Your task to perform on an android device: Open Wikipedia Image 0: 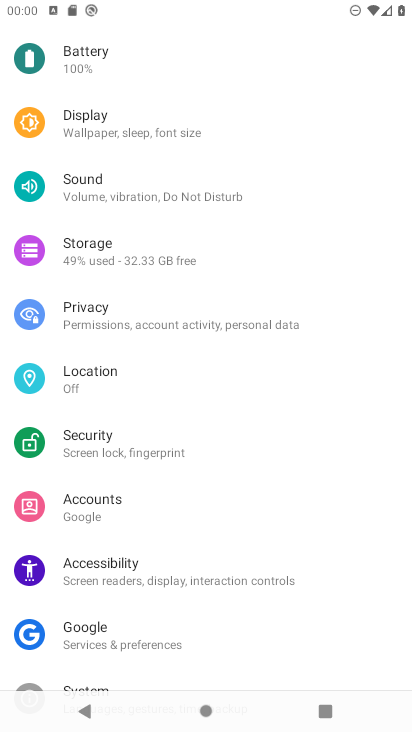
Step 0: press home button
Your task to perform on an android device: Open Wikipedia Image 1: 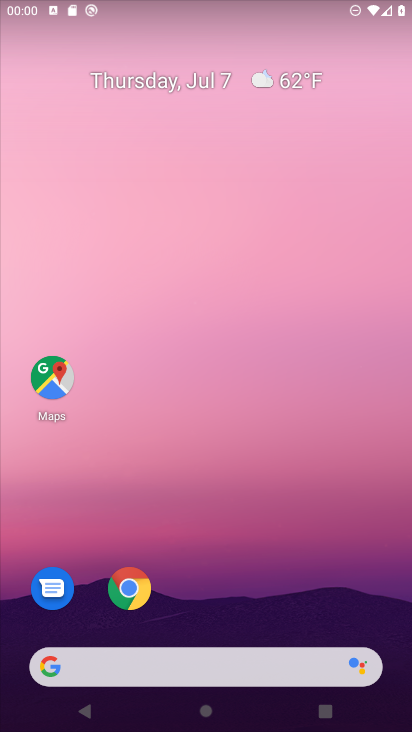
Step 1: click (130, 591)
Your task to perform on an android device: Open Wikipedia Image 2: 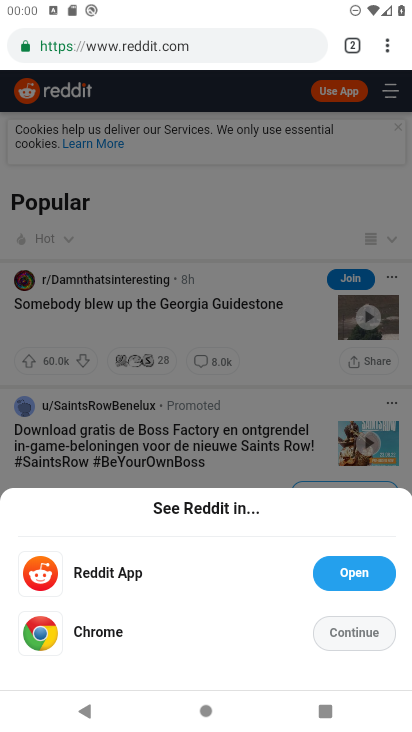
Step 2: click (214, 48)
Your task to perform on an android device: Open Wikipedia Image 3: 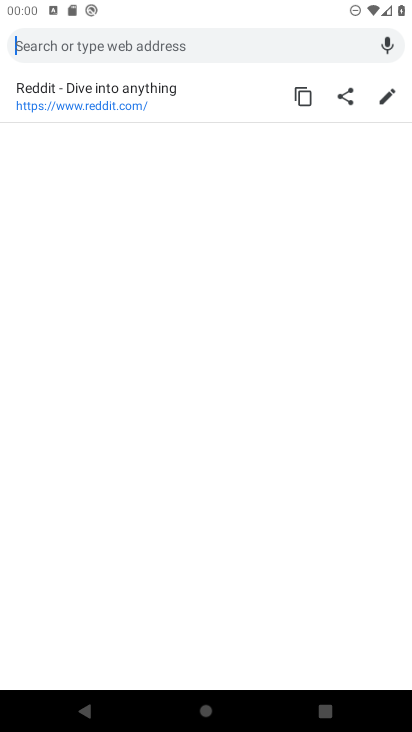
Step 3: type "Wikipedia"
Your task to perform on an android device: Open Wikipedia Image 4: 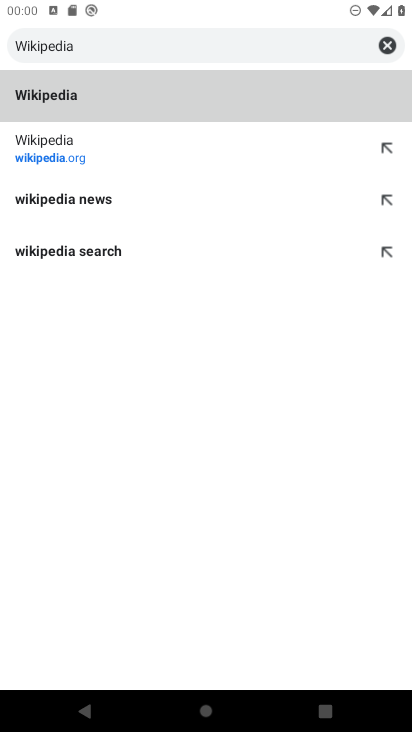
Step 4: click (42, 139)
Your task to perform on an android device: Open Wikipedia Image 5: 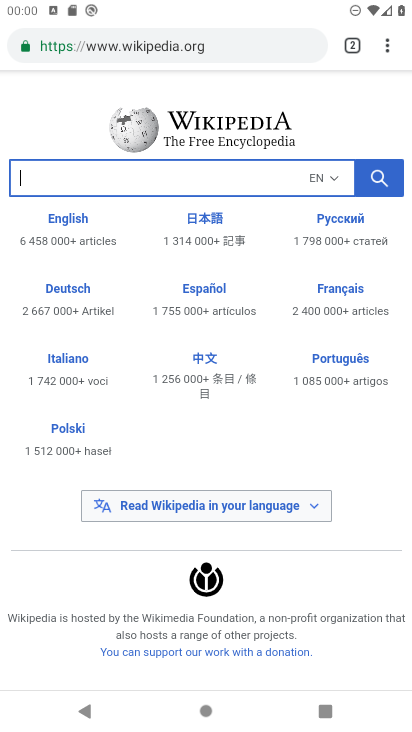
Step 5: task complete